Your task to perform on an android device: change notifications settings Image 0: 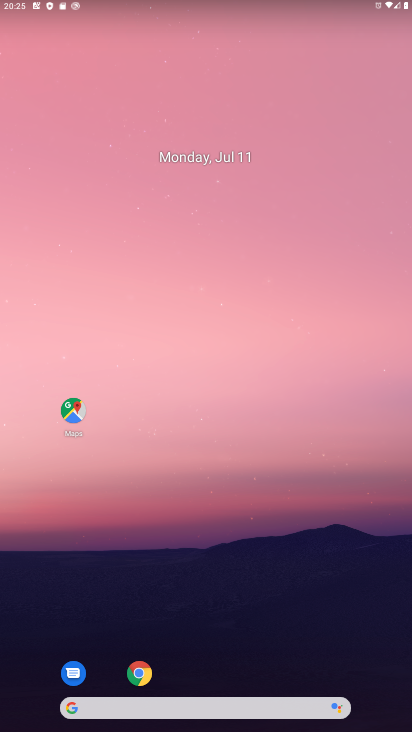
Step 0: press home button
Your task to perform on an android device: change notifications settings Image 1: 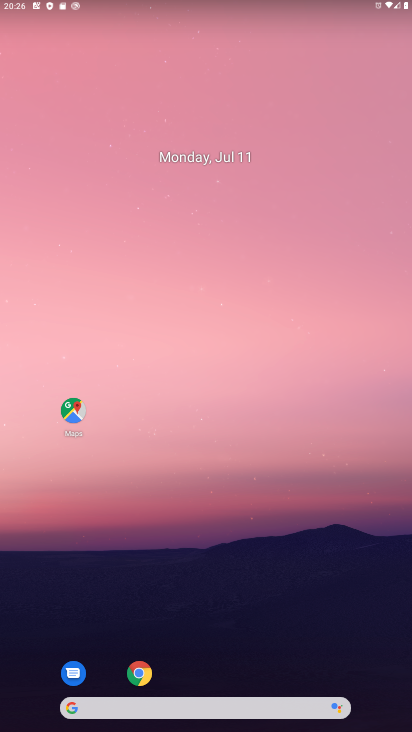
Step 1: drag from (203, 663) to (221, 139)
Your task to perform on an android device: change notifications settings Image 2: 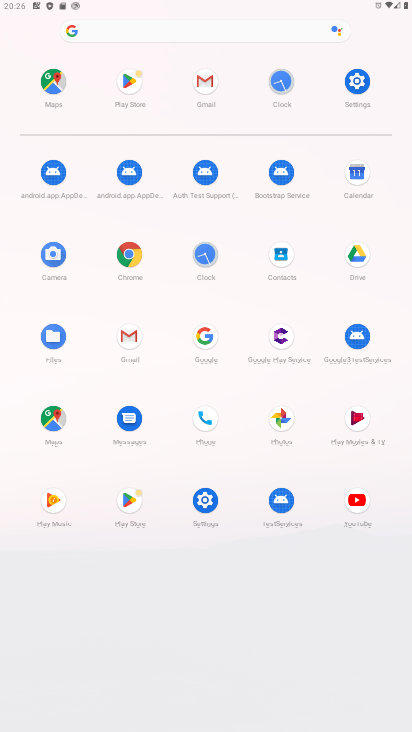
Step 2: click (205, 499)
Your task to perform on an android device: change notifications settings Image 3: 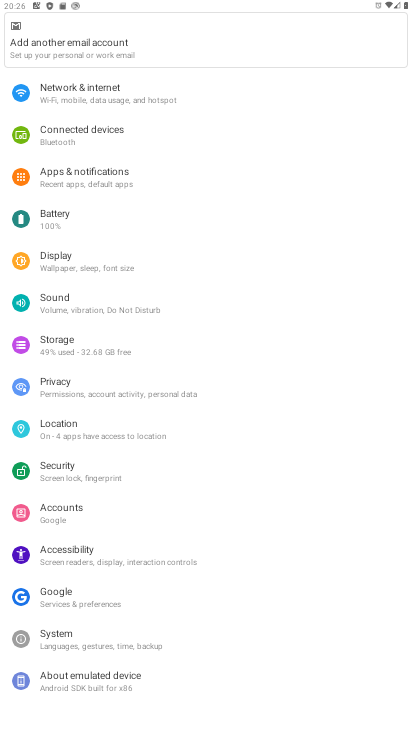
Step 3: click (79, 167)
Your task to perform on an android device: change notifications settings Image 4: 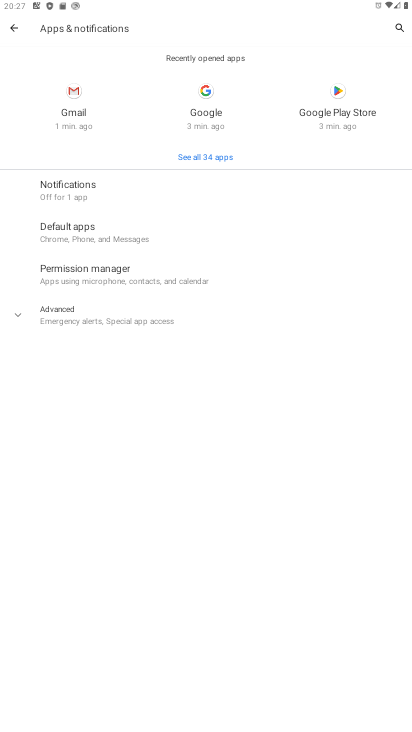
Step 4: click (109, 186)
Your task to perform on an android device: change notifications settings Image 5: 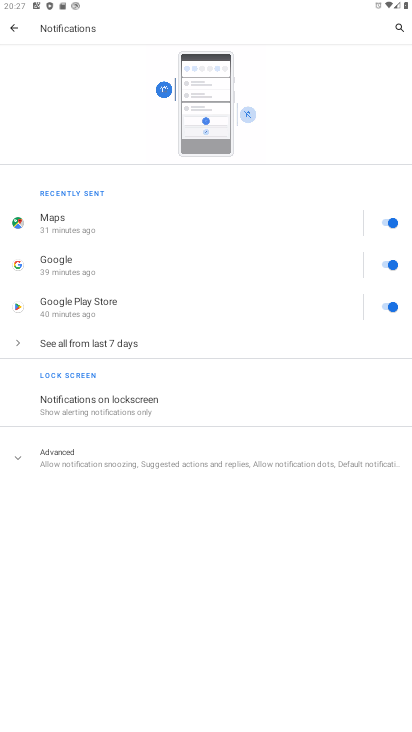
Step 5: click (386, 221)
Your task to perform on an android device: change notifications settings Image 6: 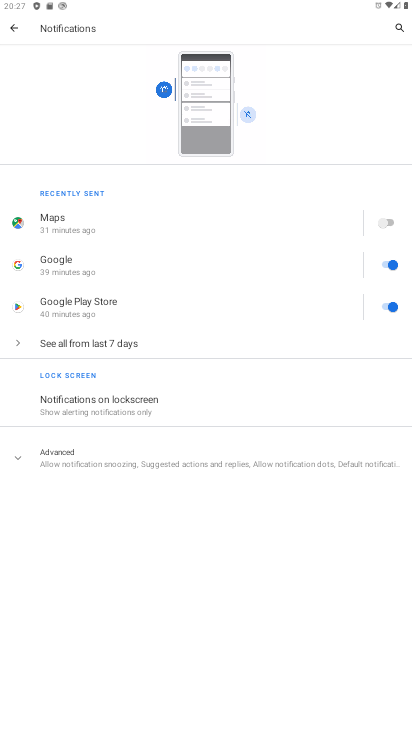
Step 6: click (393, 259)
Your task to perform on an android device: change notifications settings Image 7: 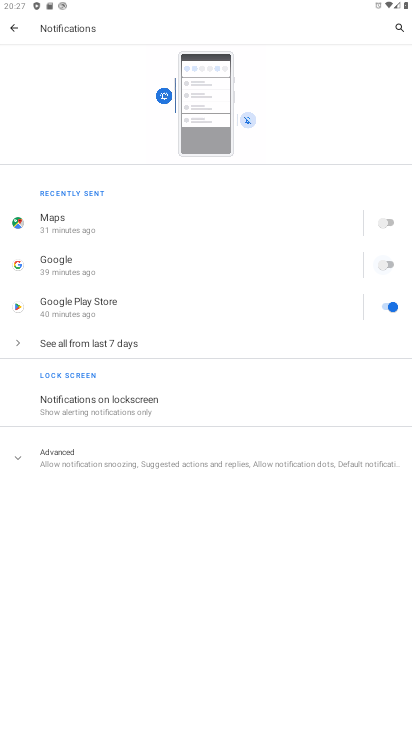
Step 7: click (382, 304)
Your task to perform on an android device: change notifications settings Image 8: 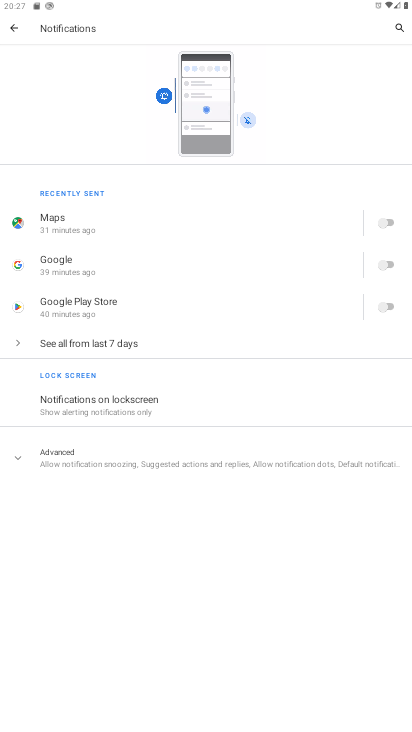
Step 8: click (27, 455)
Your task to perform on an android device: change notifications settings Image 9: 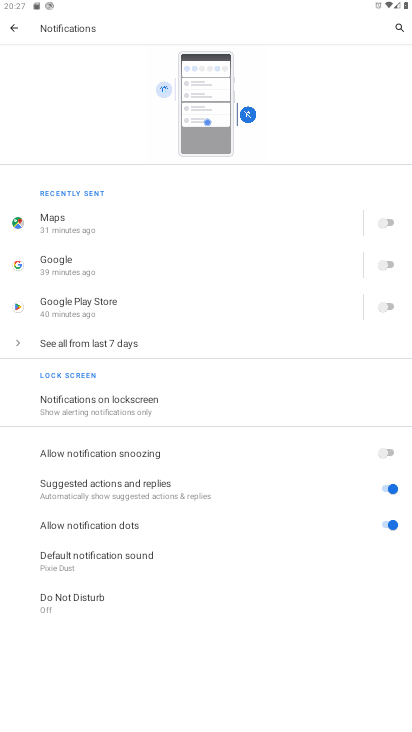
Step 9: task complete